Your task to perform on an android device: Turn on the flashlight Image 0: 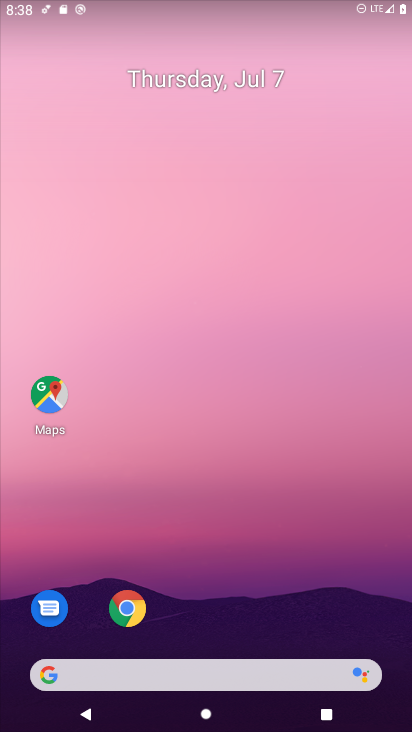
Step 0: drag from (222, 5) to (217, 302)
Your task to perform on an android device: Turn on the flashlight Image 1: 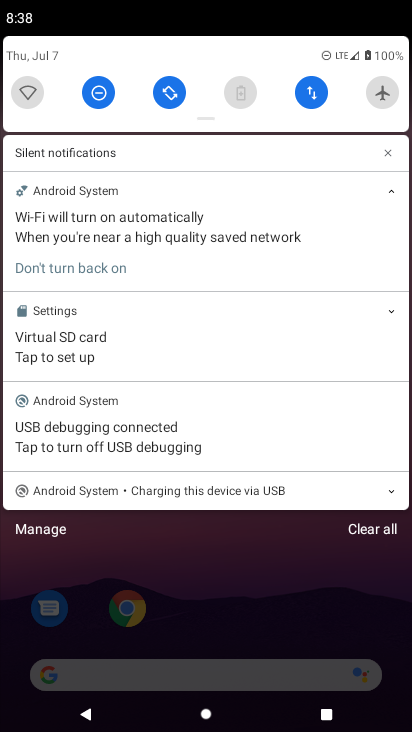
Step 1: drag from (198, 114) to (200, 352)
Your task to perform on an android device: Turn on the flashlight Image 2: 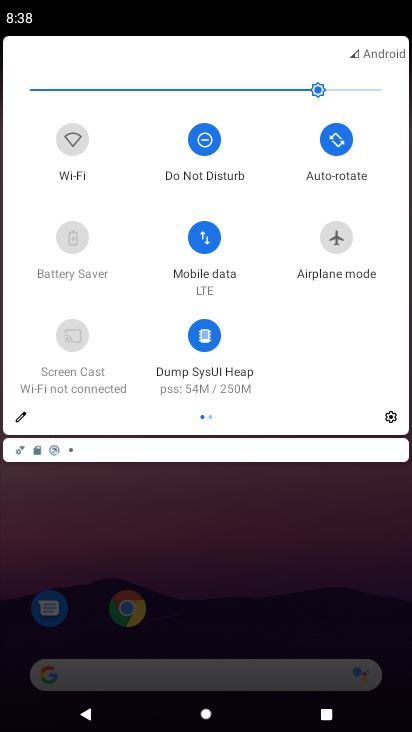
Step 2: click (14, 413)
Your task to perform on an android device: Turn on the flashlight Image 3: 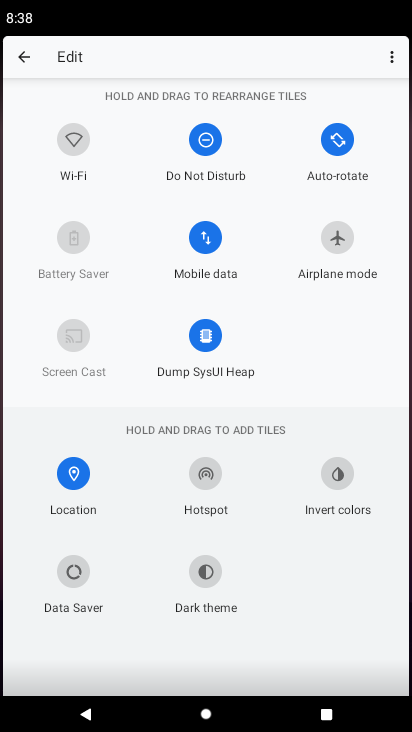
Step 3: task complete